Your task to perform on an android device: change the clock style Image 0: 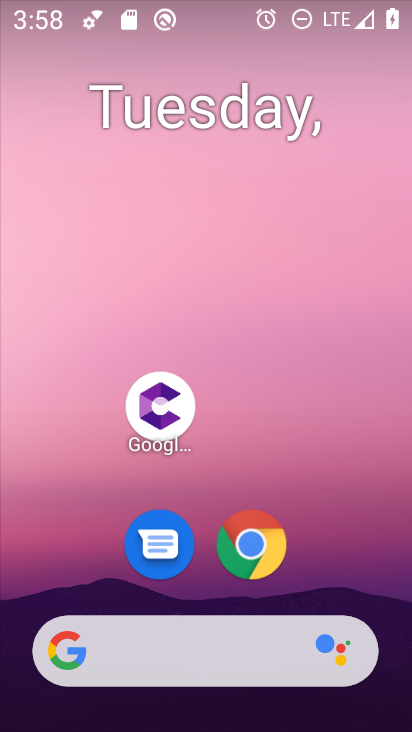
Step 0: drag from (353, 582) to (345, 225)
Your task to perform on an android device: change the clock style Image 1: 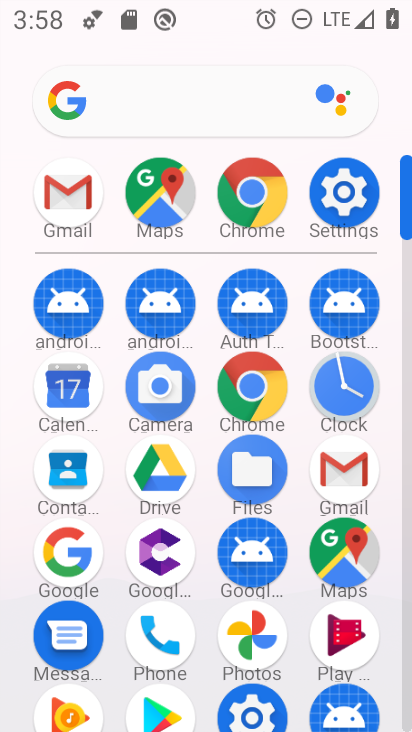
Step 1: click (341, 407)
Your task to perform on an android device: change the clock style Image 2: 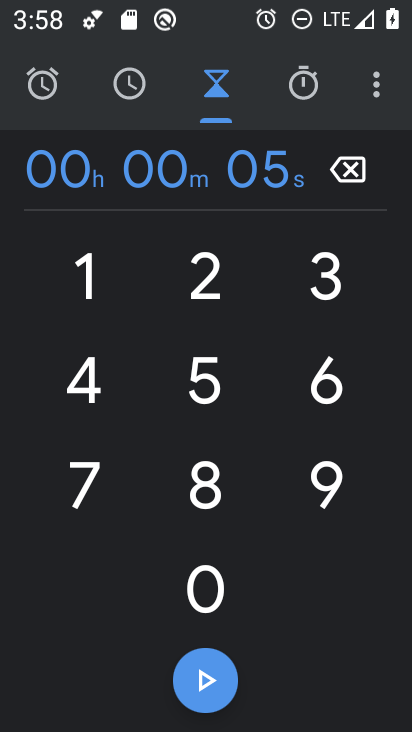
Step 2: click (377, 90)
Your task to perform on an android device: change the clock style Image 3: 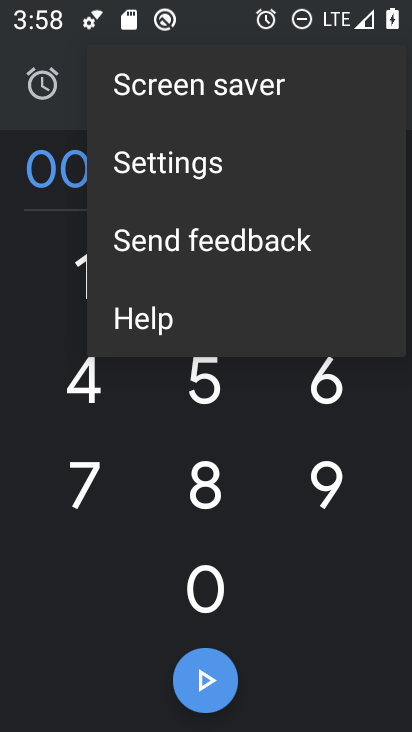
Step 3: click (269, 184)
Your task to perform on an android device: change the clock style Image 4: 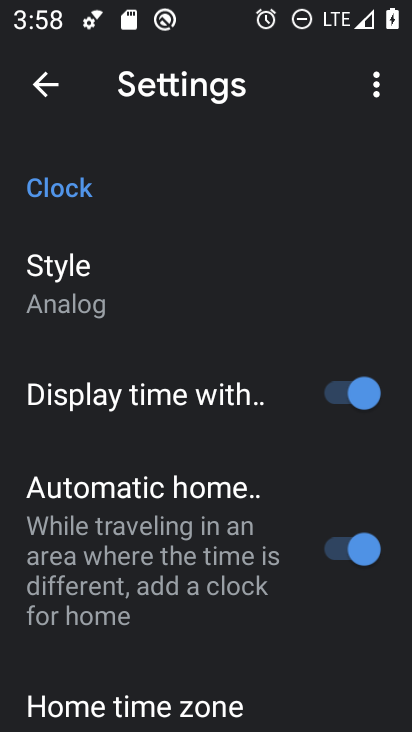
Step 4: drag from (290, 610) to (293, 430)
Your task to perform on an android device: change the clock style Image 5: 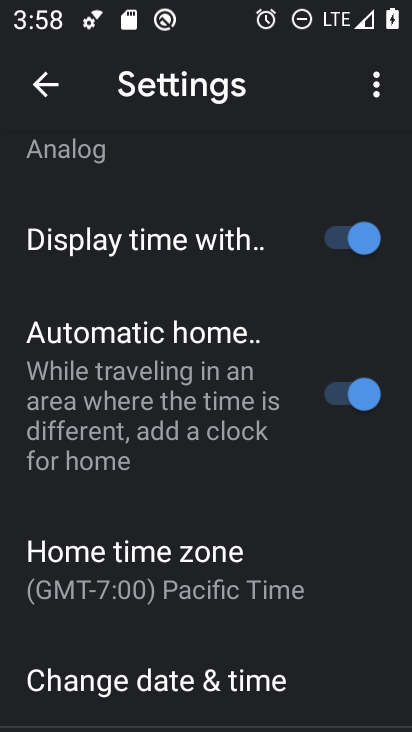
Step 5: drag from (278, 559) to (275, 440)
Your task to perform on an android device: change the clock style Image 6: 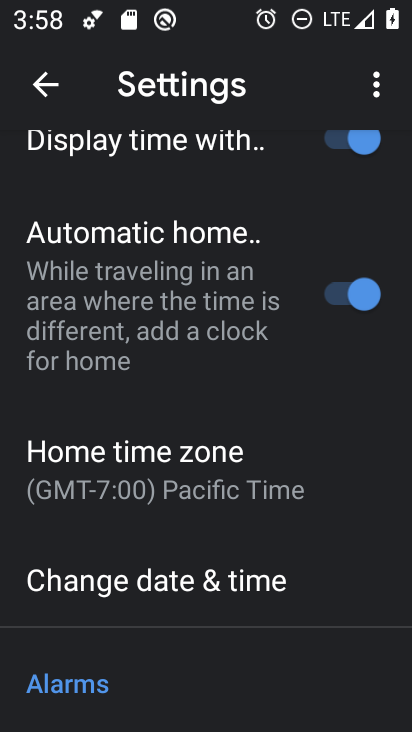
Step 6: drag from (309, 632) to (318, 465)
Your task to perform on an android device: change the clock style Image 7: 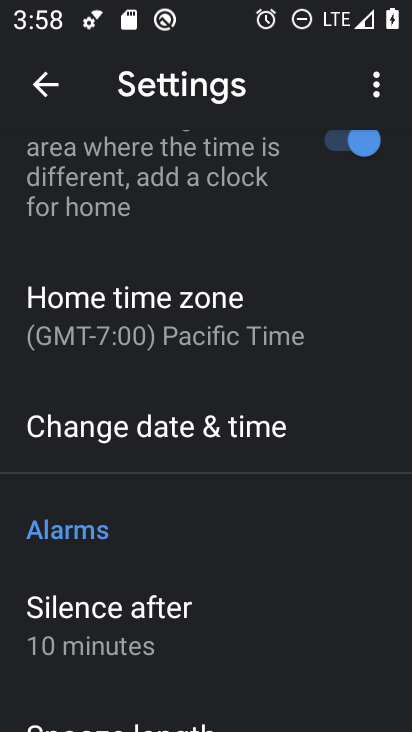
Step 7: drag from (311, 636) to (320, 484)
Your task to perform on an android device: change the clock style Image 8: 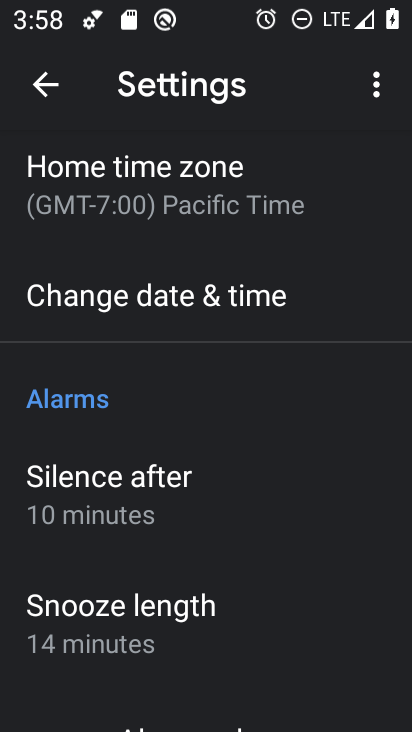
Step 8: drag from (289, 637) to (299, 520)
Your task to perform on an android device: change the clock style Image 9: 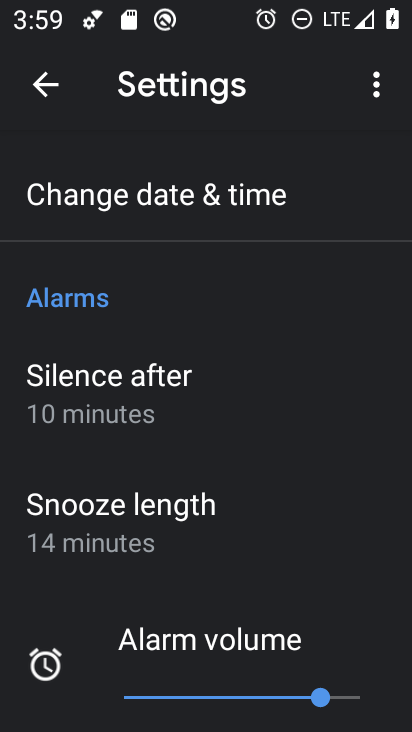
Step 9: drag from (332, 652) to (345, 489)
Your task to perform on an android device: change the clock style Image 10: 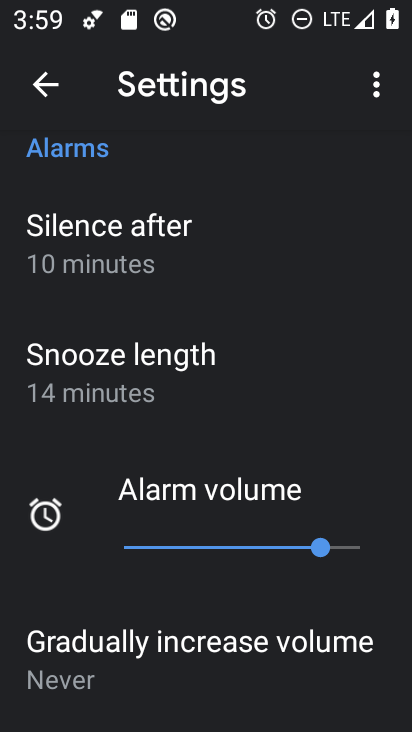
Step 10: drag from (337, 678) to (343, 585)
Your task to perform on an android device: change the clock style Image 11: 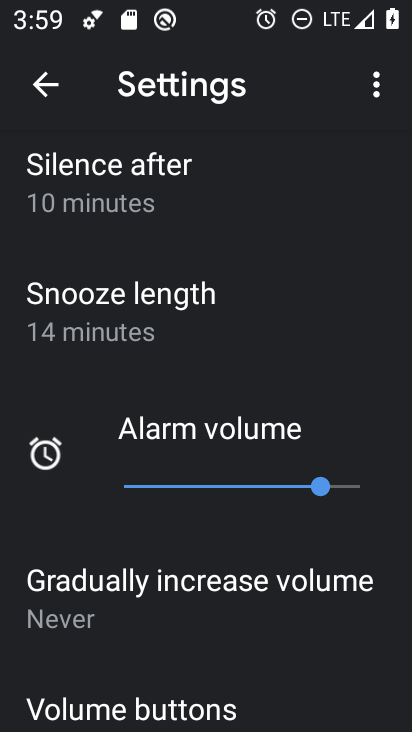
Step 11: drag from (330, 668) to (344, 539)
Your task to perform on an android device: change the clock style Image 12: 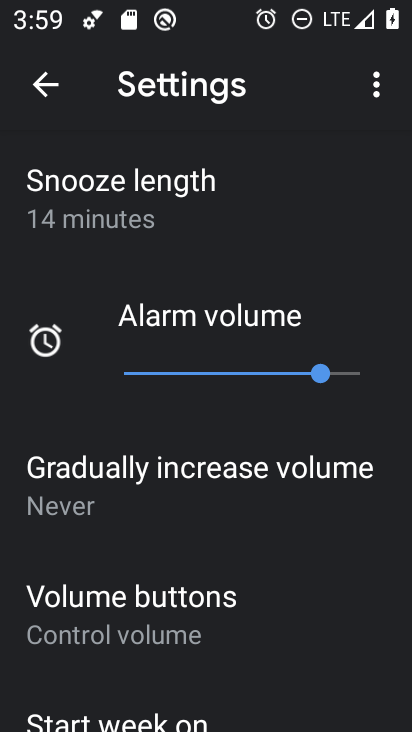
Step 12: drag from (318, 667) to (307, 521)
Your task to perform on an android device: change the clock style Image 13: 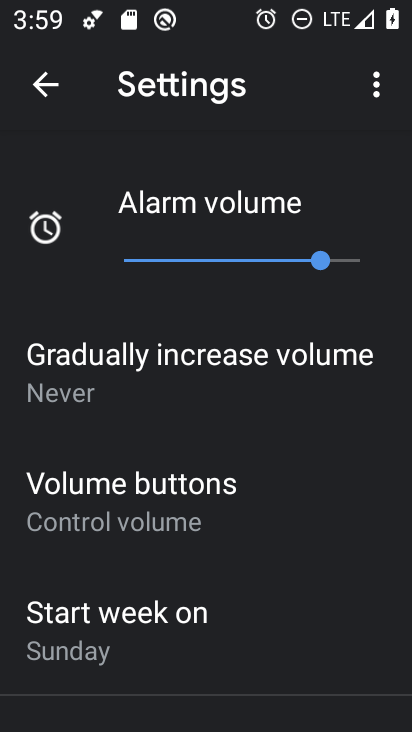
Step 13: drag from (293, 666) to (293, 546)
Your task to perform on an android device: change the clock style Image 14: 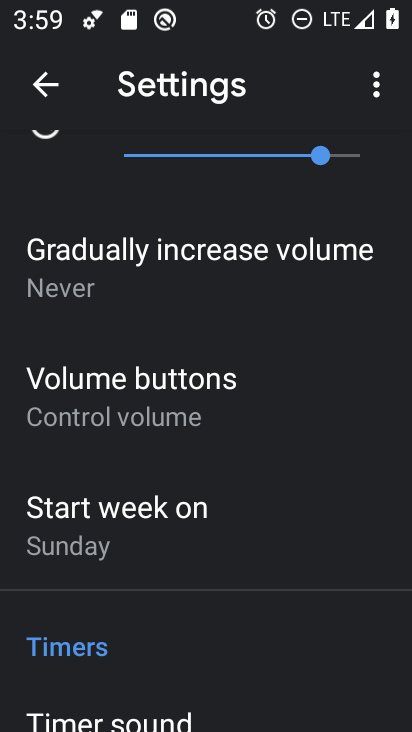
Step 14: drag from (348, 200) to (299, 475)
Your task to perform on an android device: change the clock style Image 15: 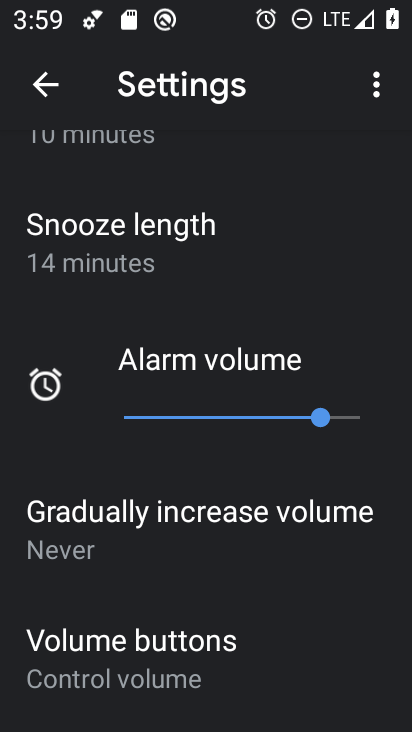
Step 15: drag from (295, 225) to (269, 471)
Your task to perform on an android device: change the clock style Image 16: 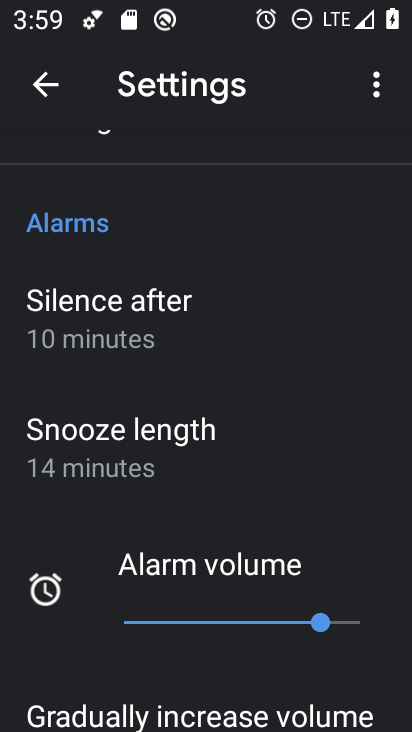
Step 16: drag from (295, 262) to (300, 389)
Your task to perform on an android device: change the clock style Image 17: 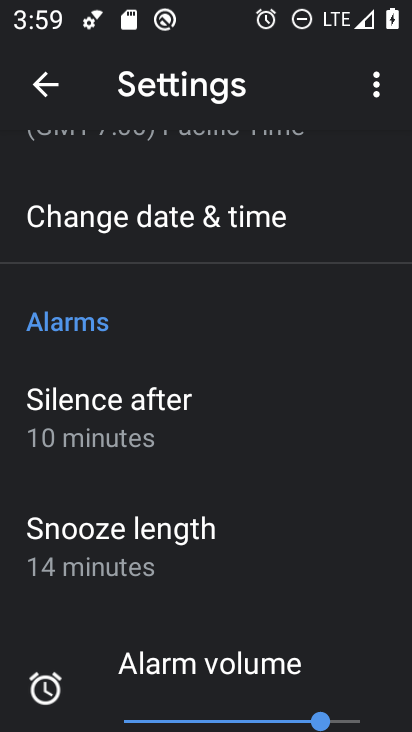
Step 17: drag from (314, 237) to (314, 442)
Your task to perform on an android device: change the clock style Image 18: 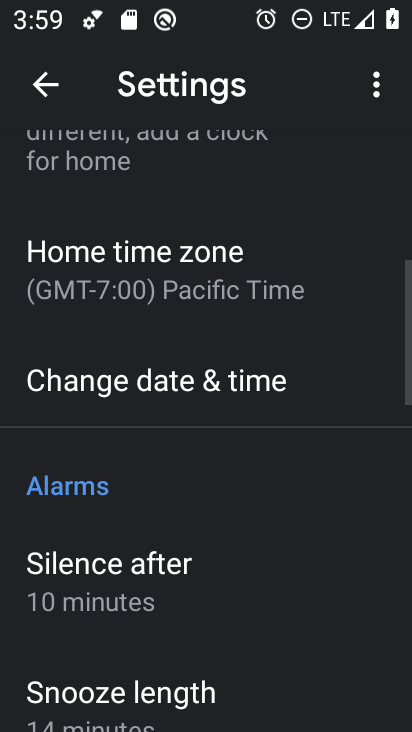
Step 18: drag from (325, 233) to (305, 417)
Your task to perform on an android device: change the clock style Image 19: 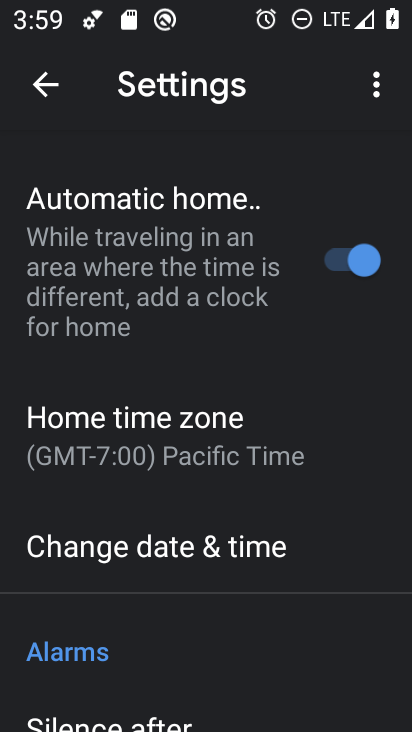
Step 19: drag from (295, 192) to (298, 377)
Your task to perform on an android device: change the clock style Image 20: 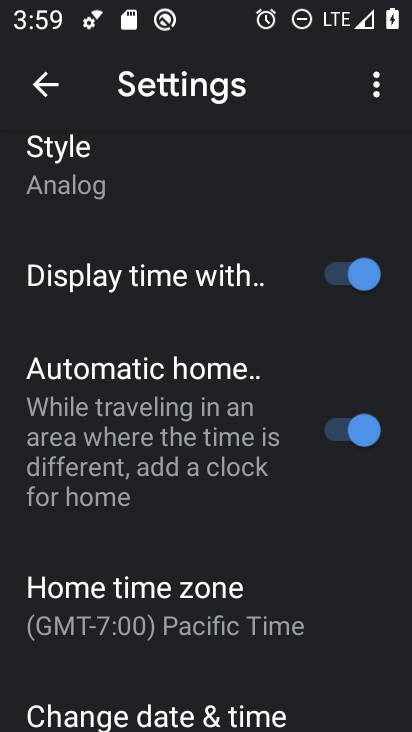
Step 20: drag from (272, 190) to (281, 335)
Your task to perform on an android device: change the clock style Image 21: 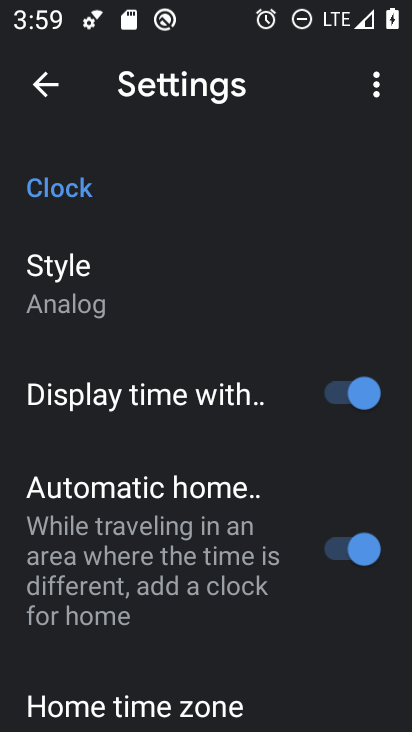
Step 21: click (85, 303)
Your task to perform on an android device: change the clock style Image 22: 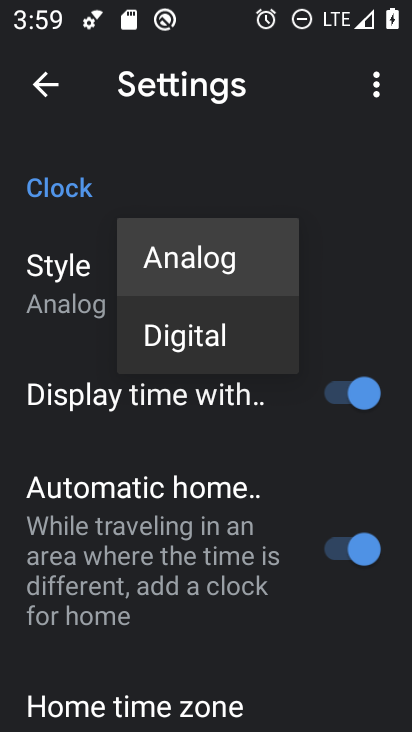
Step 22: click (194, 335)
Your task to perform on an android device: change the clock style Image 23: 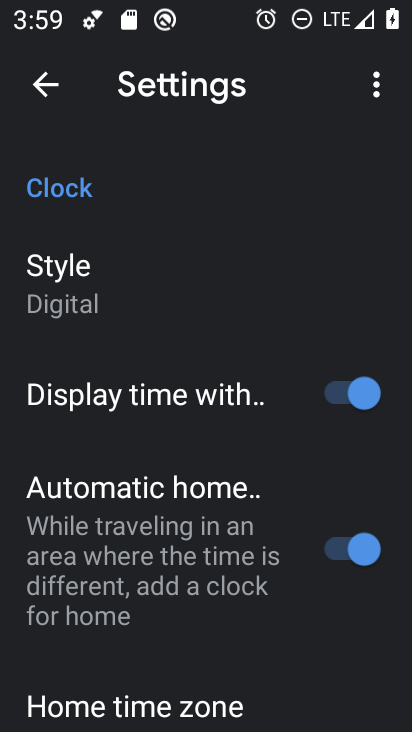
Step 23: task complete